Your task to perform on an android device: remove spam from my inbox in the gmail app Image 0: 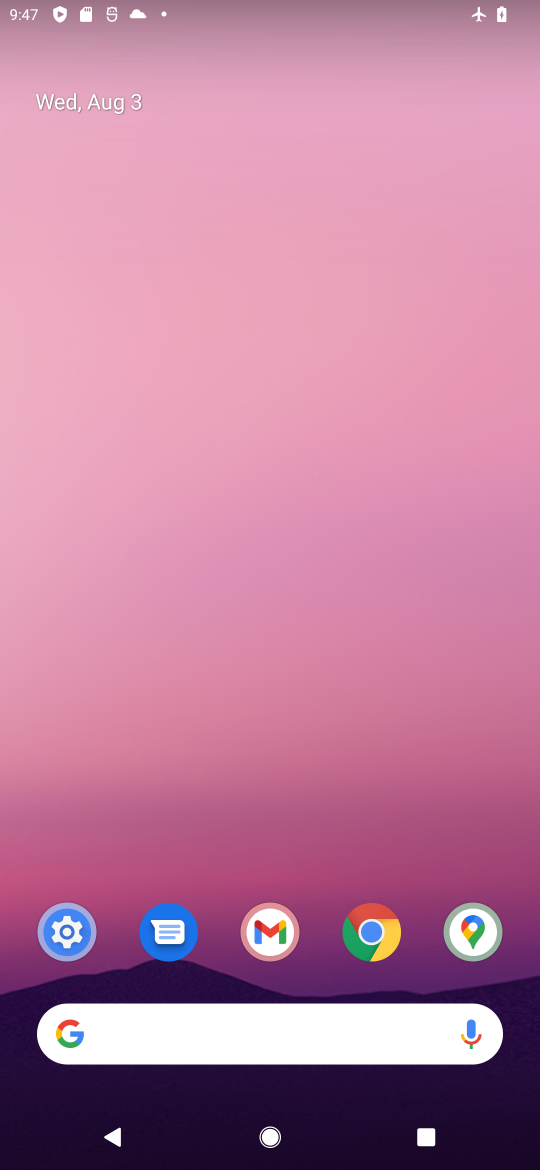
Step 0: click (268, 939)
Your task to perform on an android device: remove spam from my inbox in the gmail app Image 1: 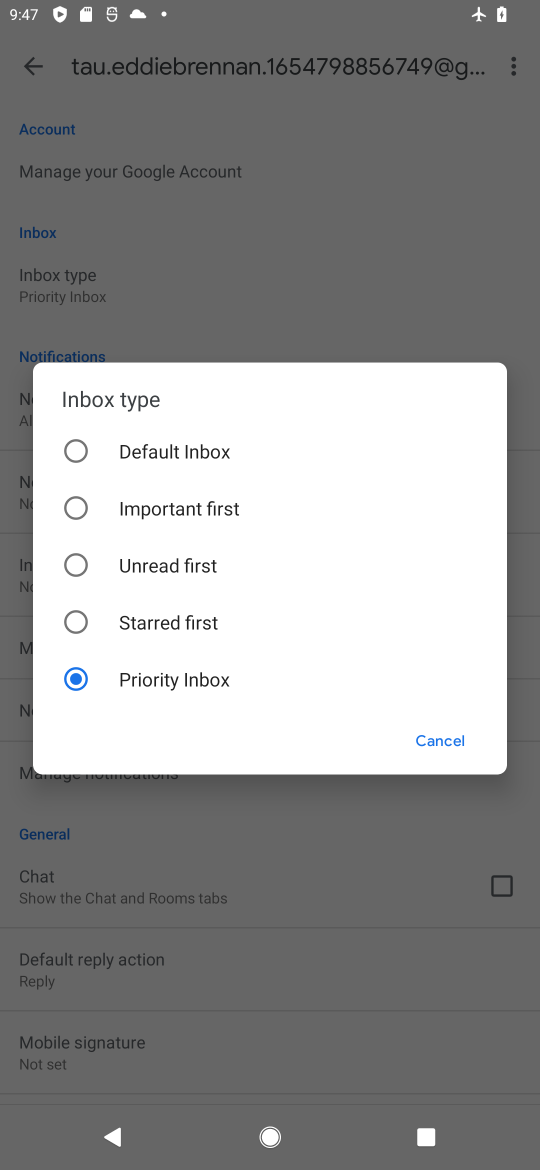
Step 1: click (453, 739)
Your task to perform on an android device: remove spam from my inbox in the gmail app Image 2: 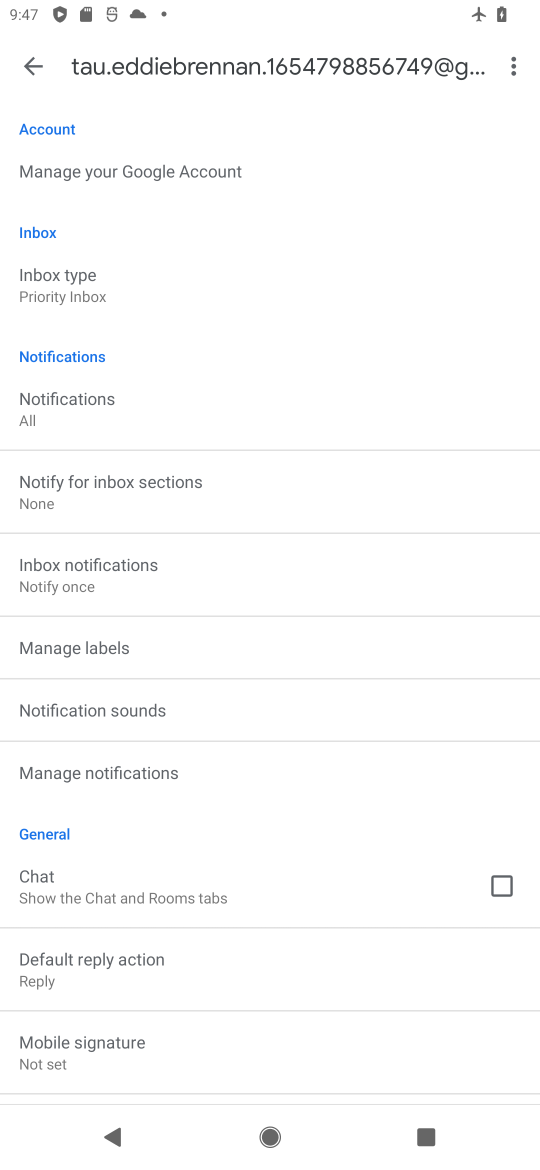
Step 2: click (39, 68)
Your task to perform on an android device: remove spam from my inbox in the gmail app Image 3: 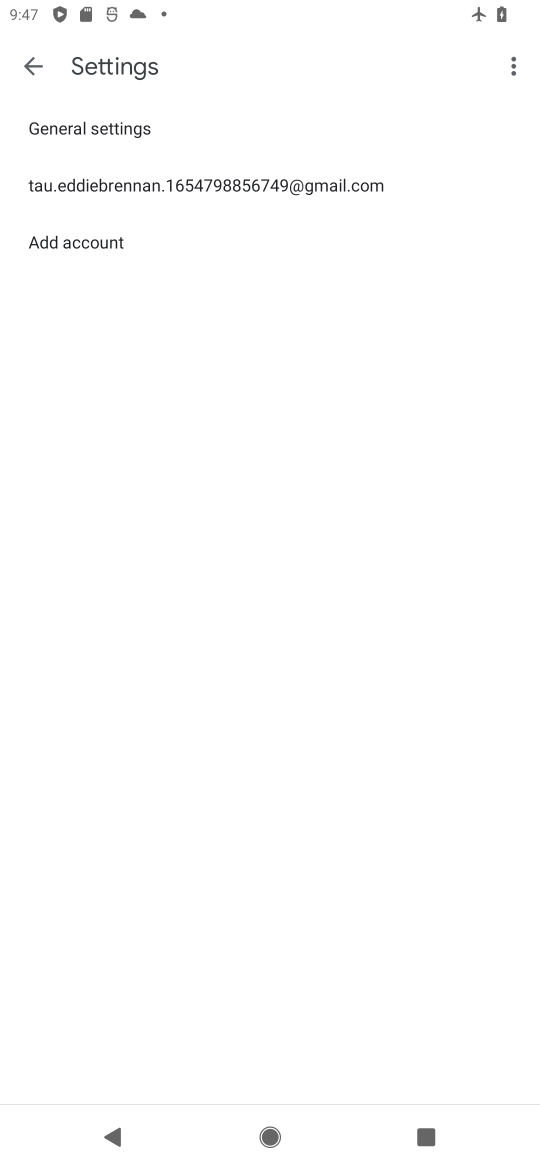
Step 3: click (40, 65)
Your task to perform on an android device: remove spam from my inbox in the gmail app Image 4: 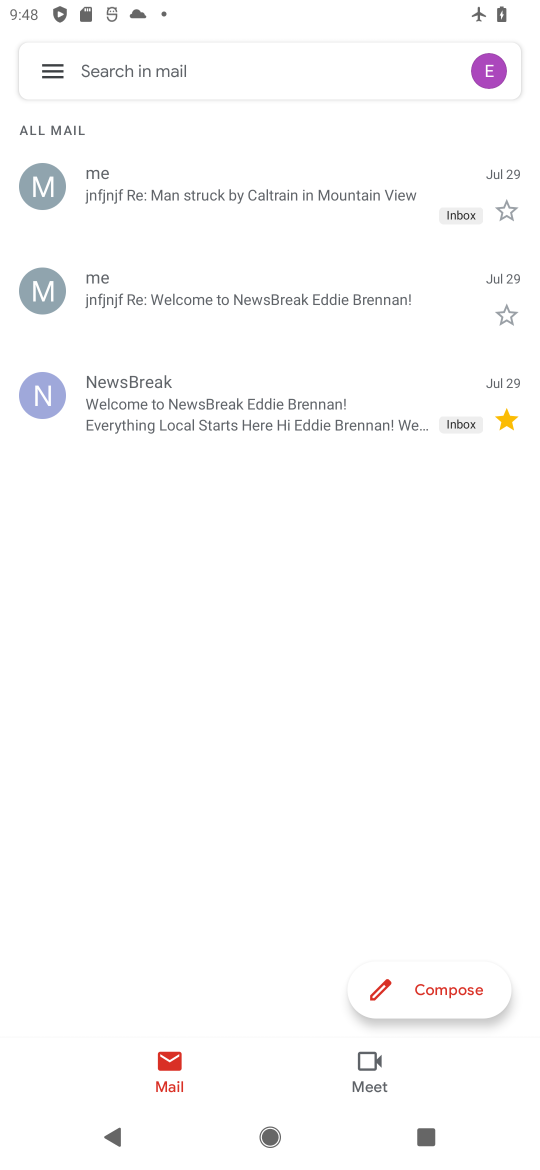
Step 4: click (45, 59)
Your task to perform on an android device: remove spam from my inbox in the gmail app Image 5: 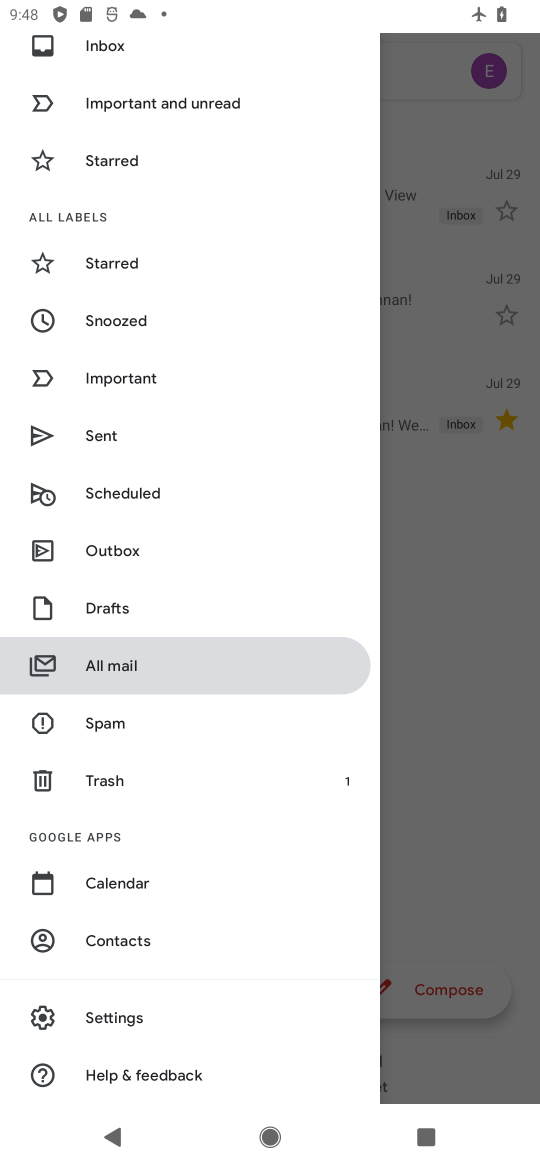
Step 5: click (154, 727)
Your task to perform on an android device: remove spam from my inbox in the gmail app Image 6: 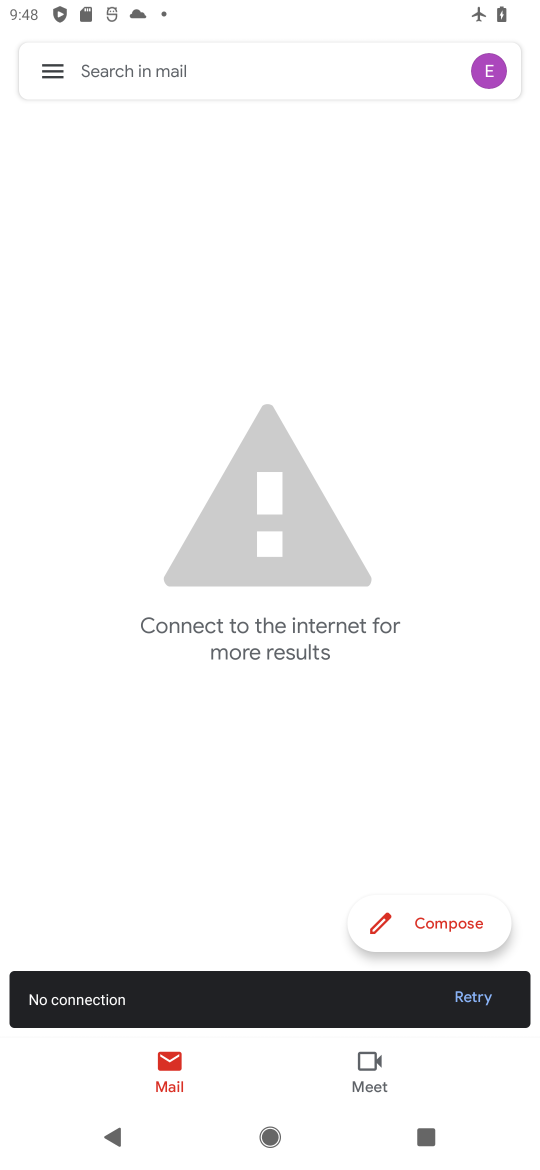
Step 6: task complete